Your task to perform on an android device: open a bookmark in the chrome app Image 0: 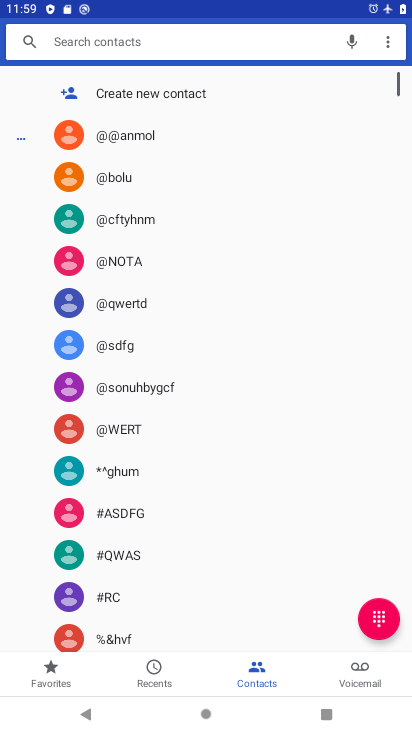
Step 0: press home button
Your task to perform on an android device: open a bookmark in the chrome app Image 1: 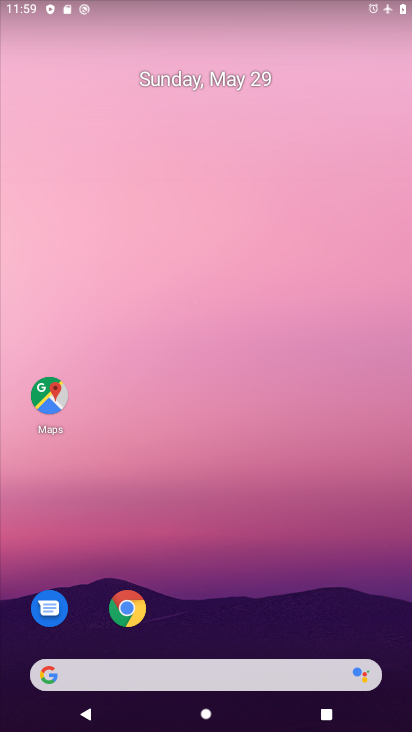
Step 1: click (143, 600)
Your task to perform on an android device: open a bookmark in the chrome app Image 2: 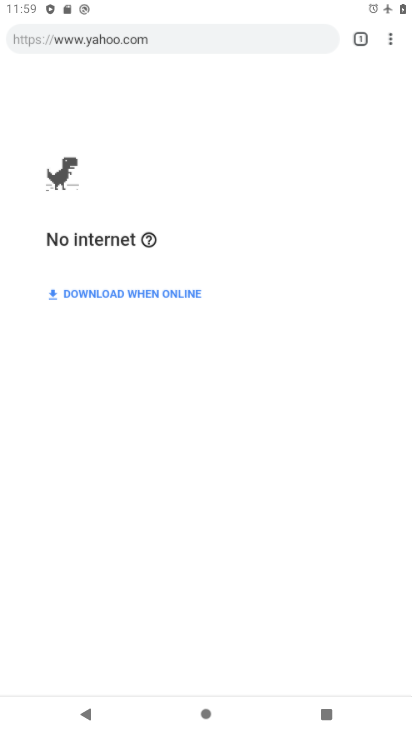
Step 2: click (392, 40)
Your task to perform on an android device: open a bookmark in the chrome app Image 3: 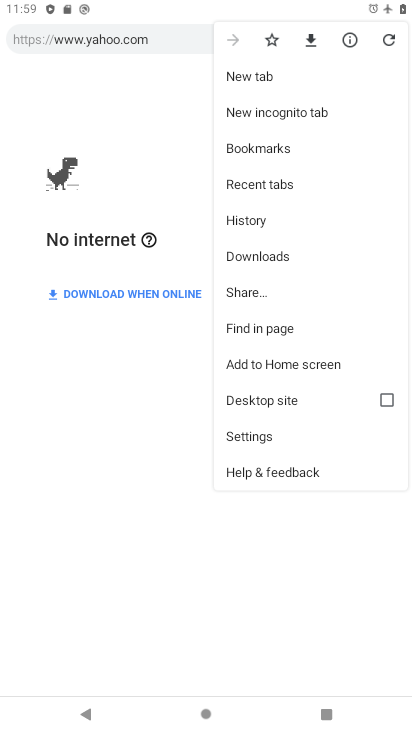
Step 3: click (247, 155)
Your task to perform on an android device: open a bookmark in the chrome app Image 4: 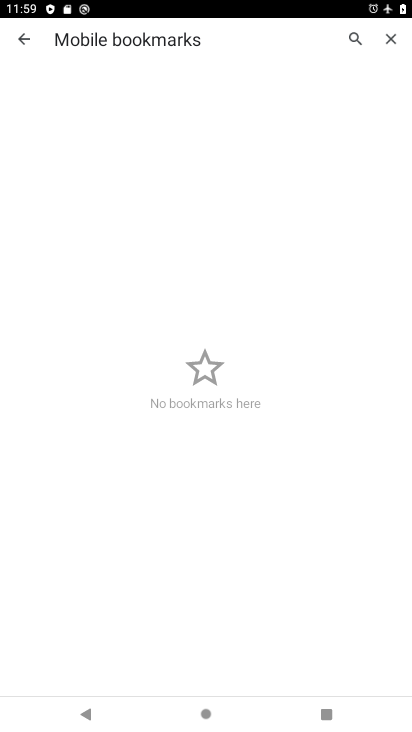
Step 4: task complete